Your task to perform on an android device: What is the news today? Image 0: 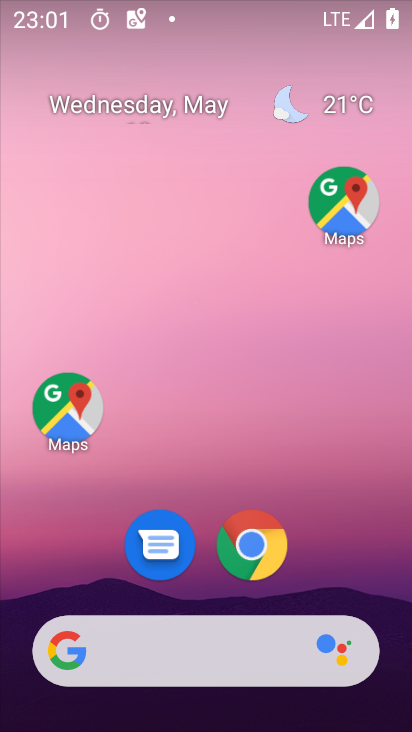
Step 0: click (198, 644)
Your task to perform on an android device: What is the news today? Image 1: 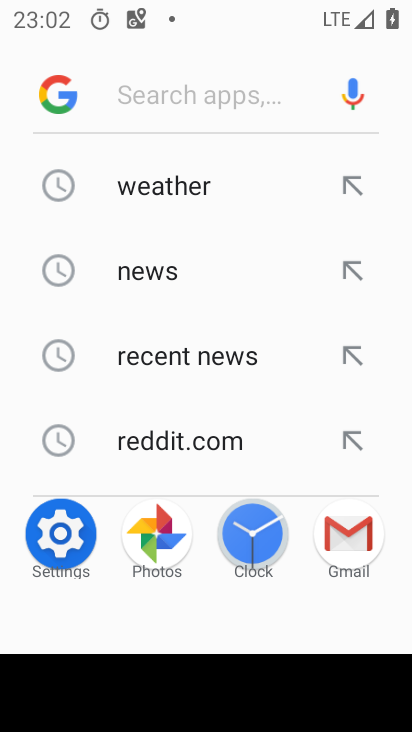
Step 1: type "what is the news today"
Your task to perform on an android device: What is the news today? Image 2: 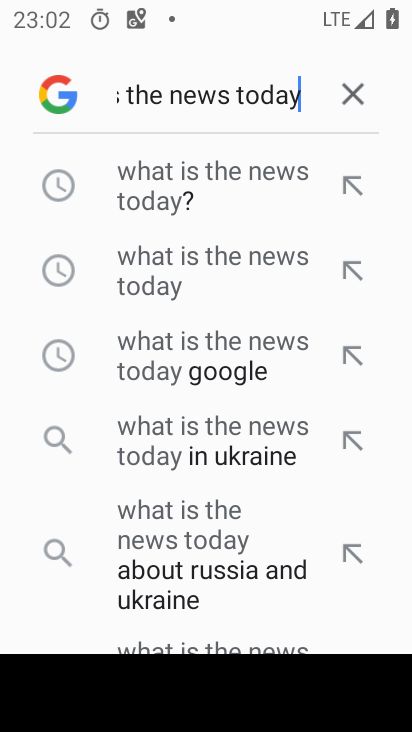
Step 2: click (214, 206)
Your task to perform on an android device: What is the news today? Image 3: 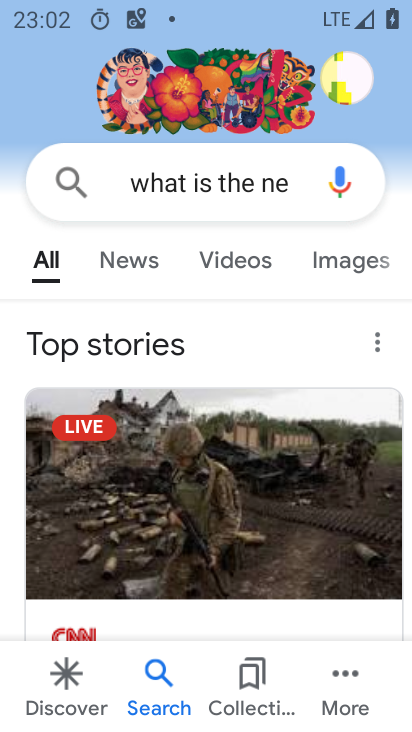
Step 3: click (137, 275)
Your task to perform on an android device: What is the news today? Image 4: 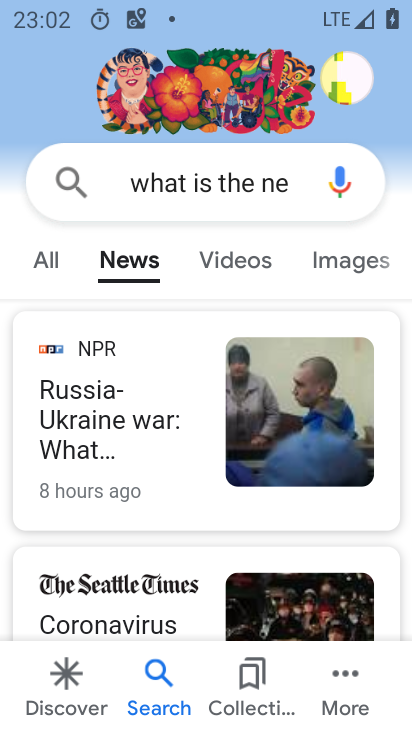
Step 4: task complete